Your task to perform on an android device: turn on sleep mode Image 0: 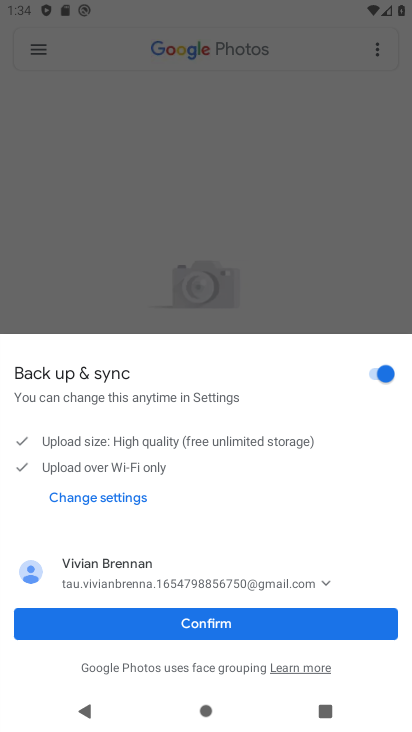
Step 0: press home button
Your task to perform on an android device: turn on sleep mode Image 1: 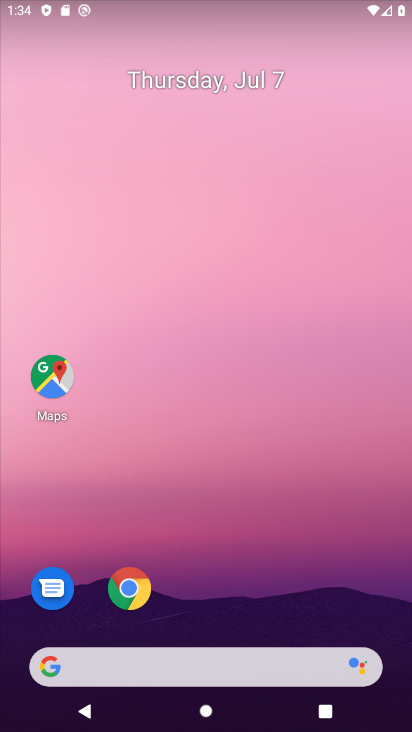
Step 1: drag from (265, 623) to (340, 219)
Your task to perform on an android device: turn on sleep mode Image 2: 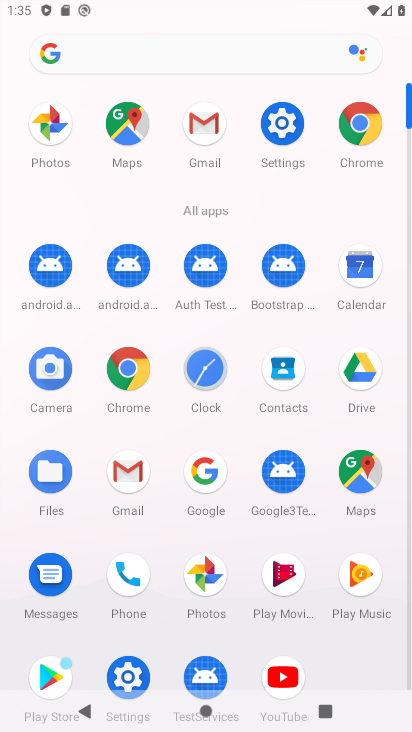
Step 2: click (130, 676)
Your task to perform on an android device: turn on sleep mode Image 3: 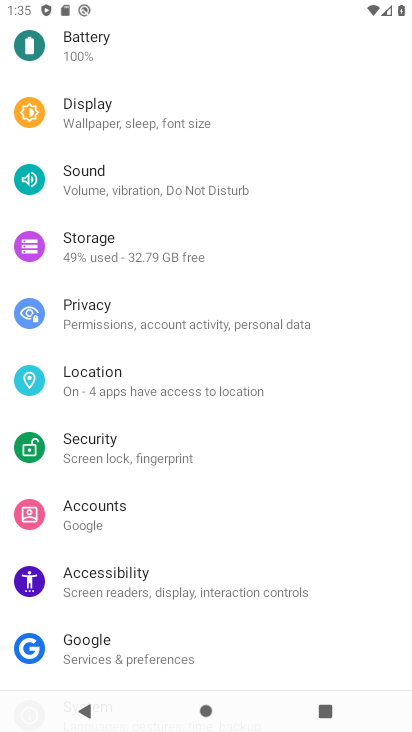
Step 3: click (131, 121)
Your task to perform on an android device: turn on sleep mode Image 4: 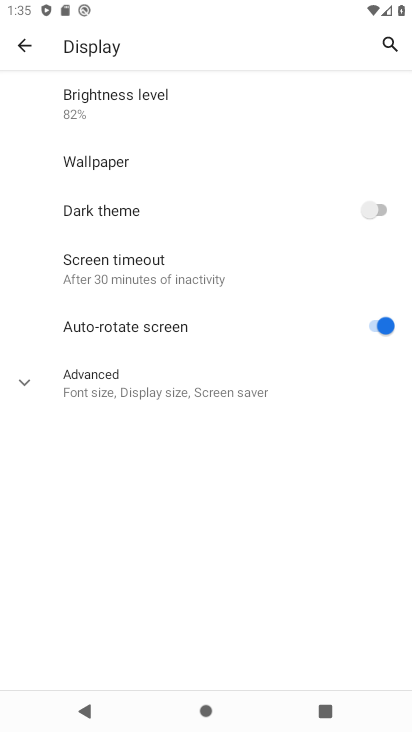
Step 4: click (189, 393)
Your task to perform on an android device: turn on sleep mode Image 5: 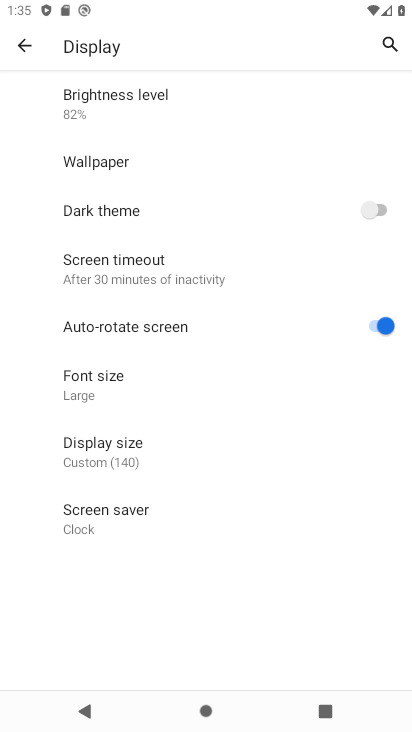
Step 5: task complete